Your task to perform on an android device: toggle data saver in the chrome app Image 0: 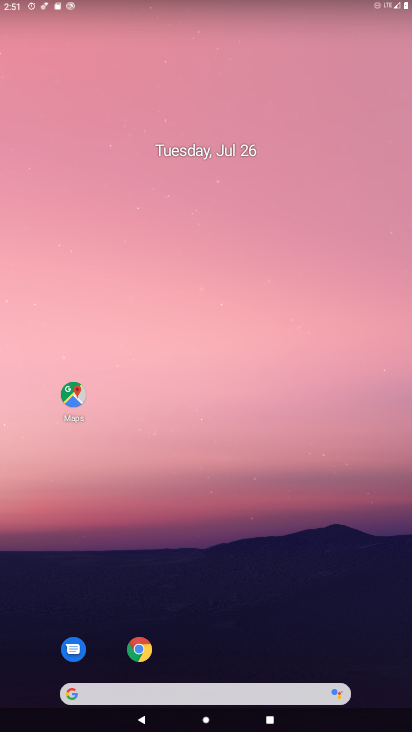
Step 0: drag from (376, 658) to (252, 4)
Your task to perform on an android device: toggle data saver in the chrome app Image 1: 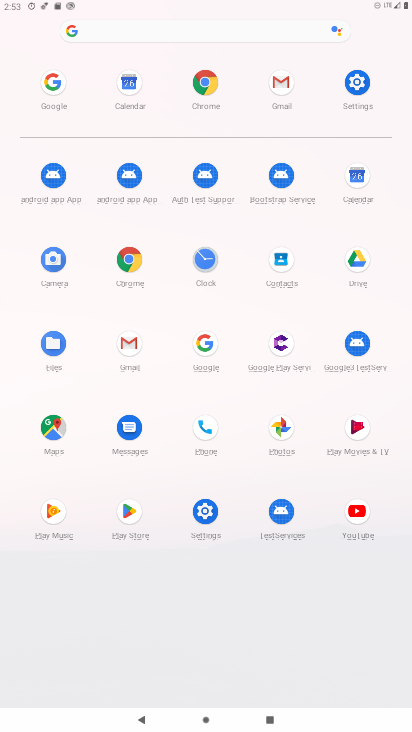
Step 1: click (124, 263)
Your task to perform on an android device: toggle data saver in the chrome app Image 2: 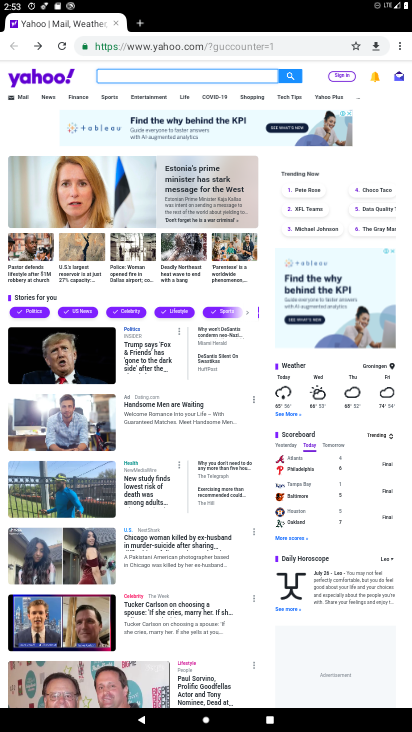
Step 2: click (403, 46)
Your task to perform on an android device: toggle data saver in the chrome app Image 3: 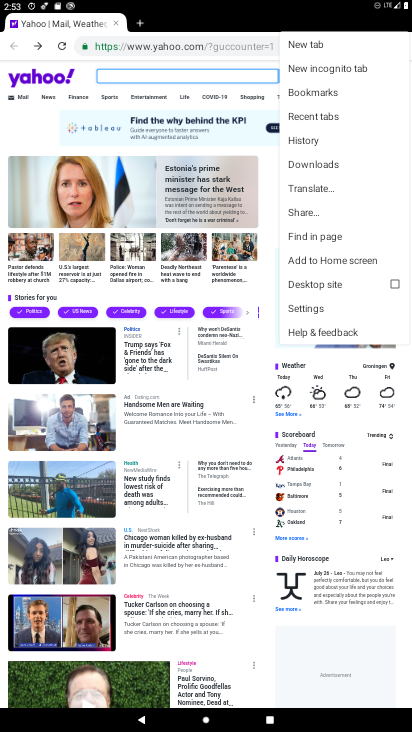
Step 3: click (313, 307)
Your task to perform on an android device: toggle data saver in the chrome app Image 4: 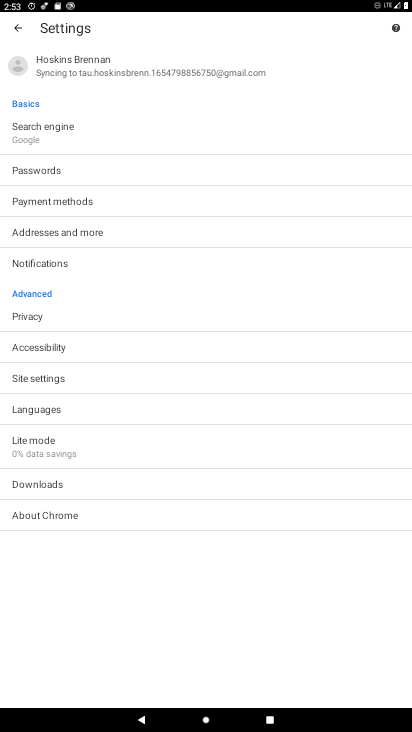
Step 4: click (123, 449)
Your task to perform on an android device: toggle data saver in the chrome app Image 5: 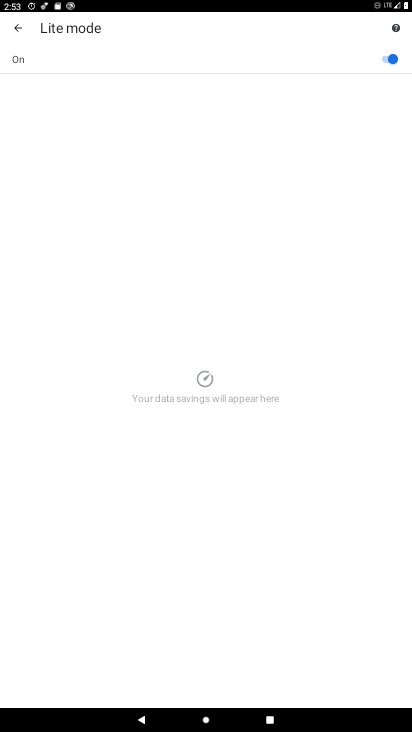
Step 5: click (385, 59)
Your task to perform on an android device: toggle data saver in the chrome app Image 6: 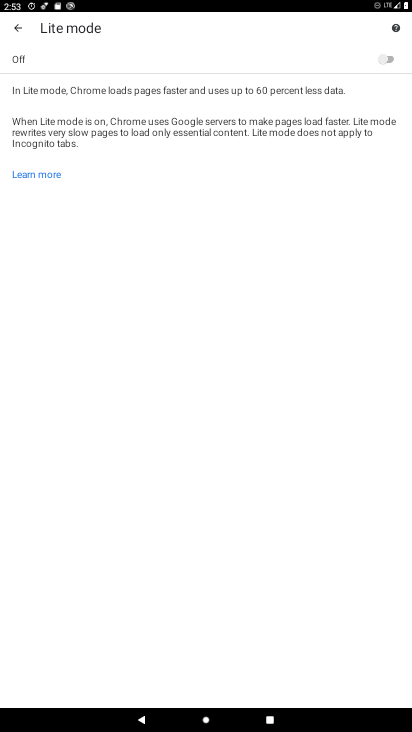
Step 6: task complete